Your task to perform on an android device: Add "logitech g pro" to the cart on walmart.com, then select checkout. Image 0: 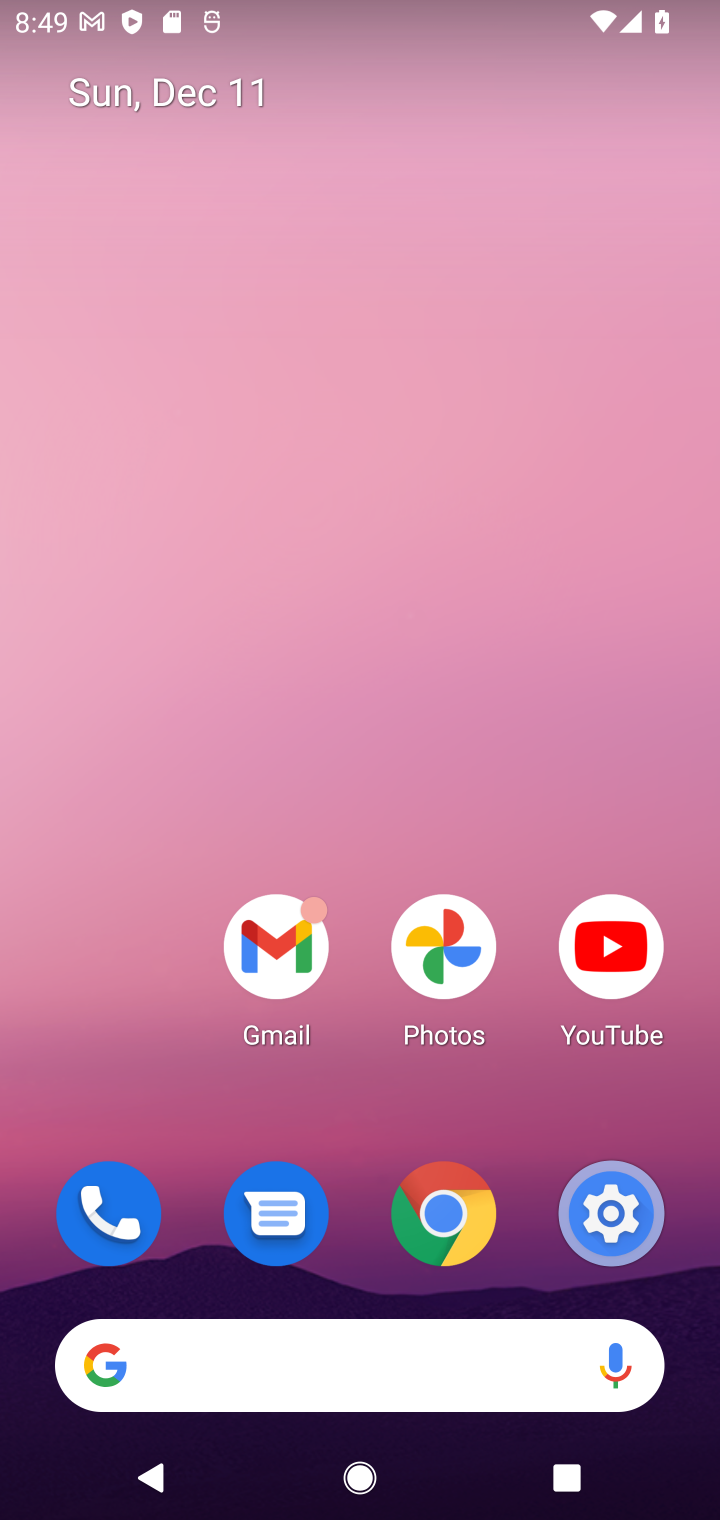
Step 0: click (313, 1334)
Your task to perform on an android device: Add "logitech g pro" to the cart on walmart.com, then select checkout. Image 1: 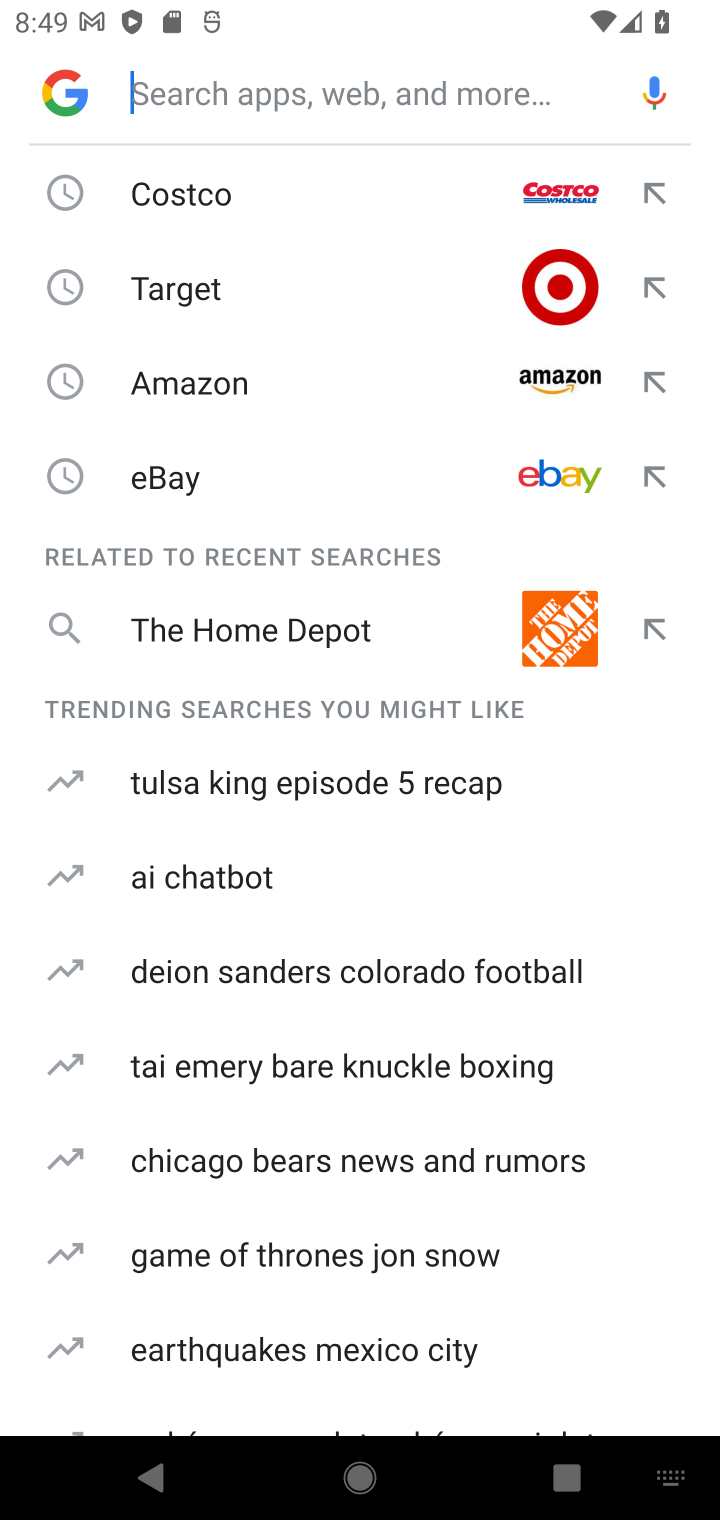
Step 1: type "walmart"
Your task to perform on an android device: Add "logitech g pro" to the cart on walmart.com, then select checkout. Image 2: 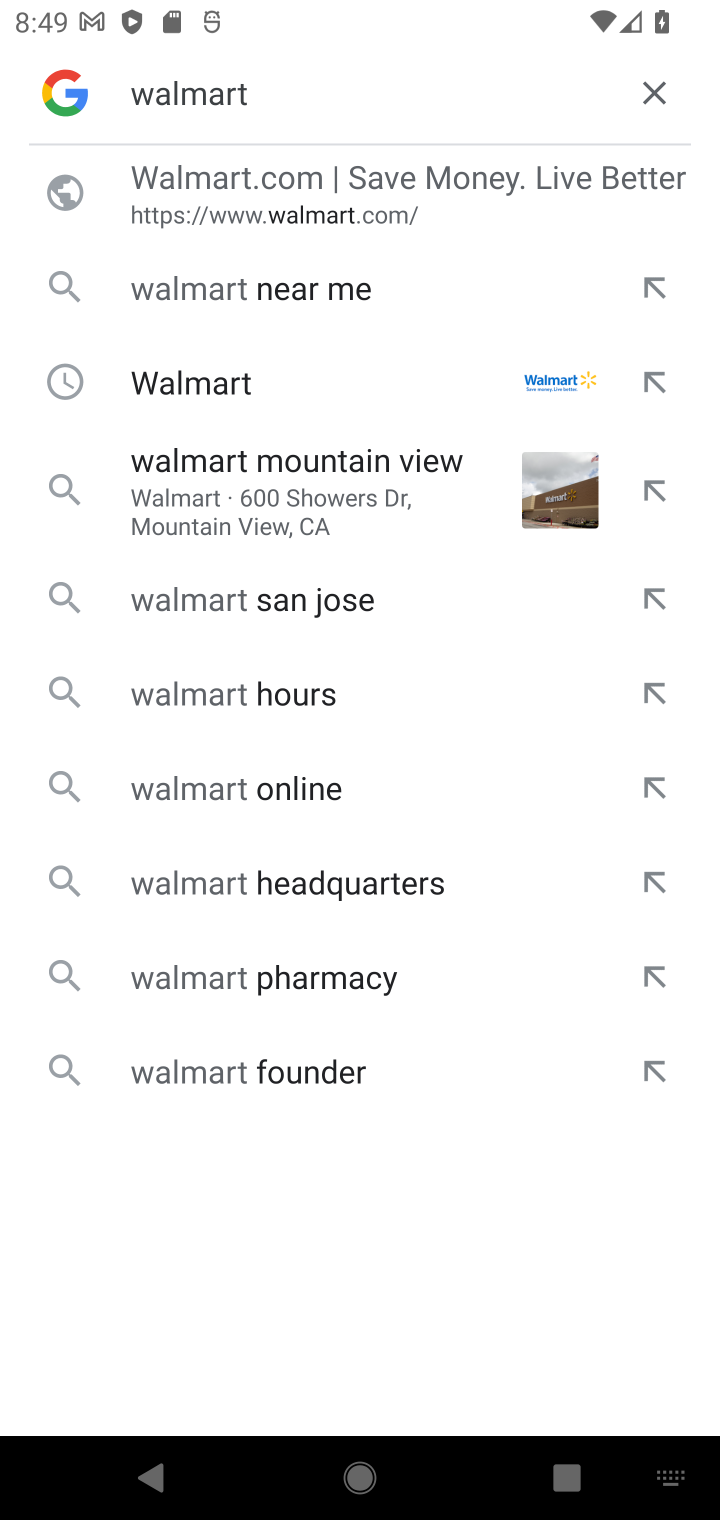
Step 2: click (464, 180)
Your task to perform on an android device: Add "logitech g pro" to the cart on walmart.com, then select checkout. Image 3: 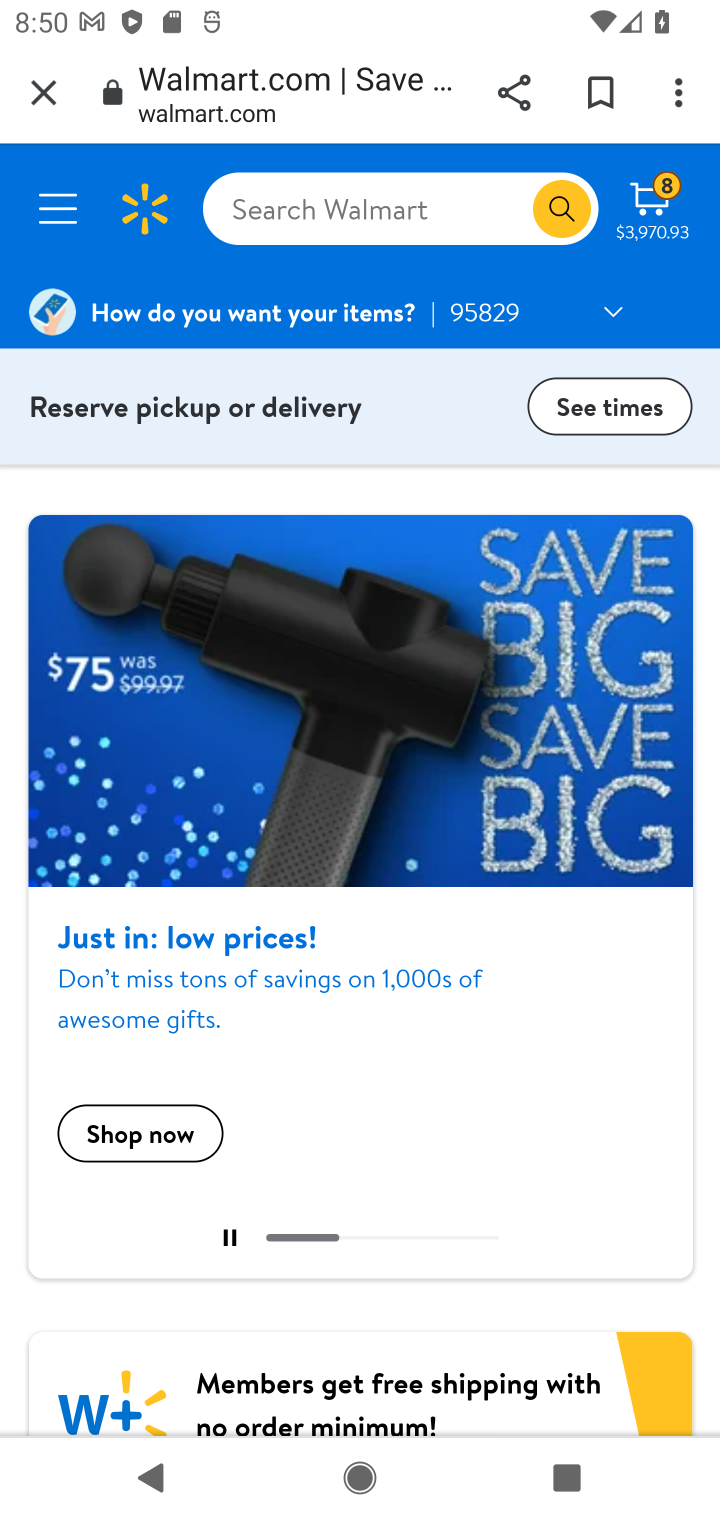
Step 3: click (334, 224)
Your task to perform on an android device: Add "logitech g pro" to the cart on walmart.com, then select checkout. Image 4: 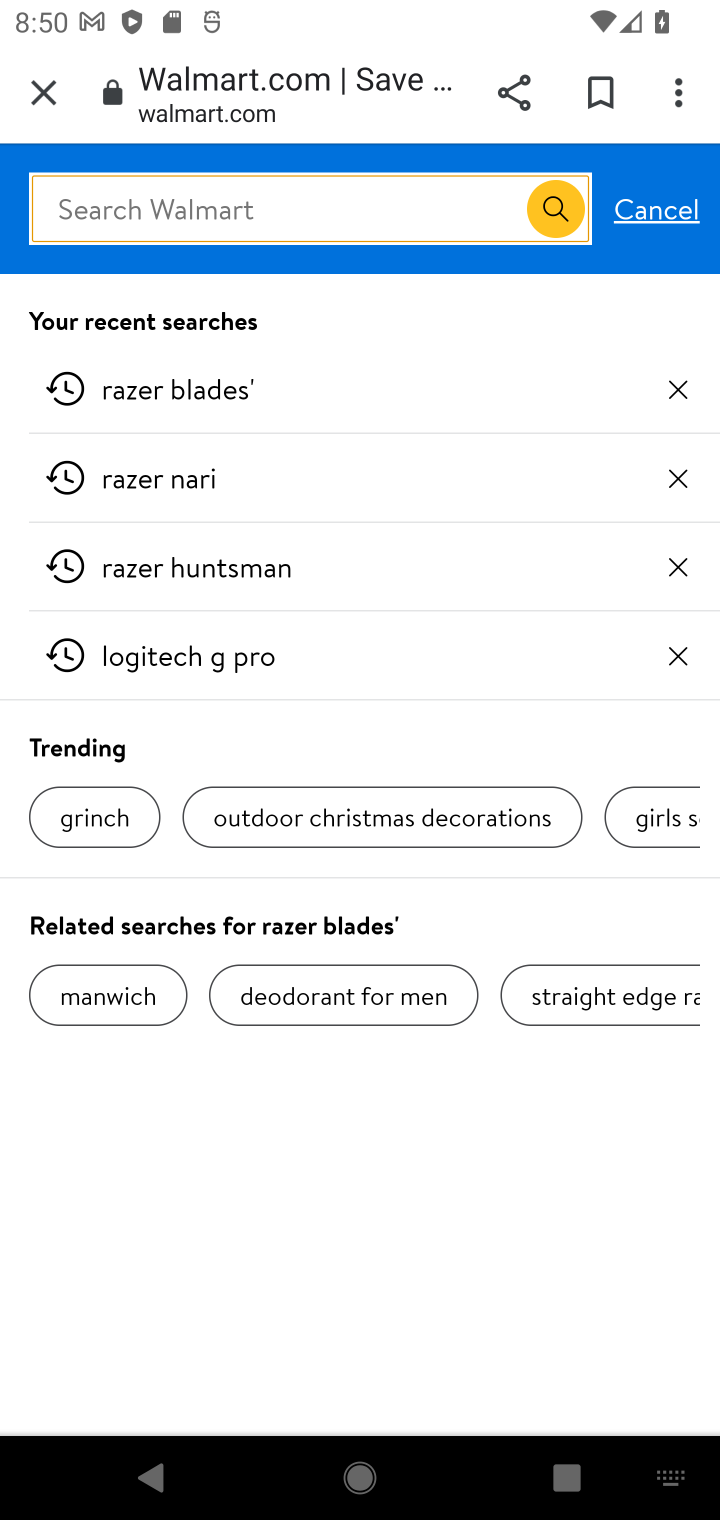
Step 4: type "logitech g pro"
Your task to perform on an android device: Add "logitech g pro" to the cart on walmart.com, then select checkout. Image 5: 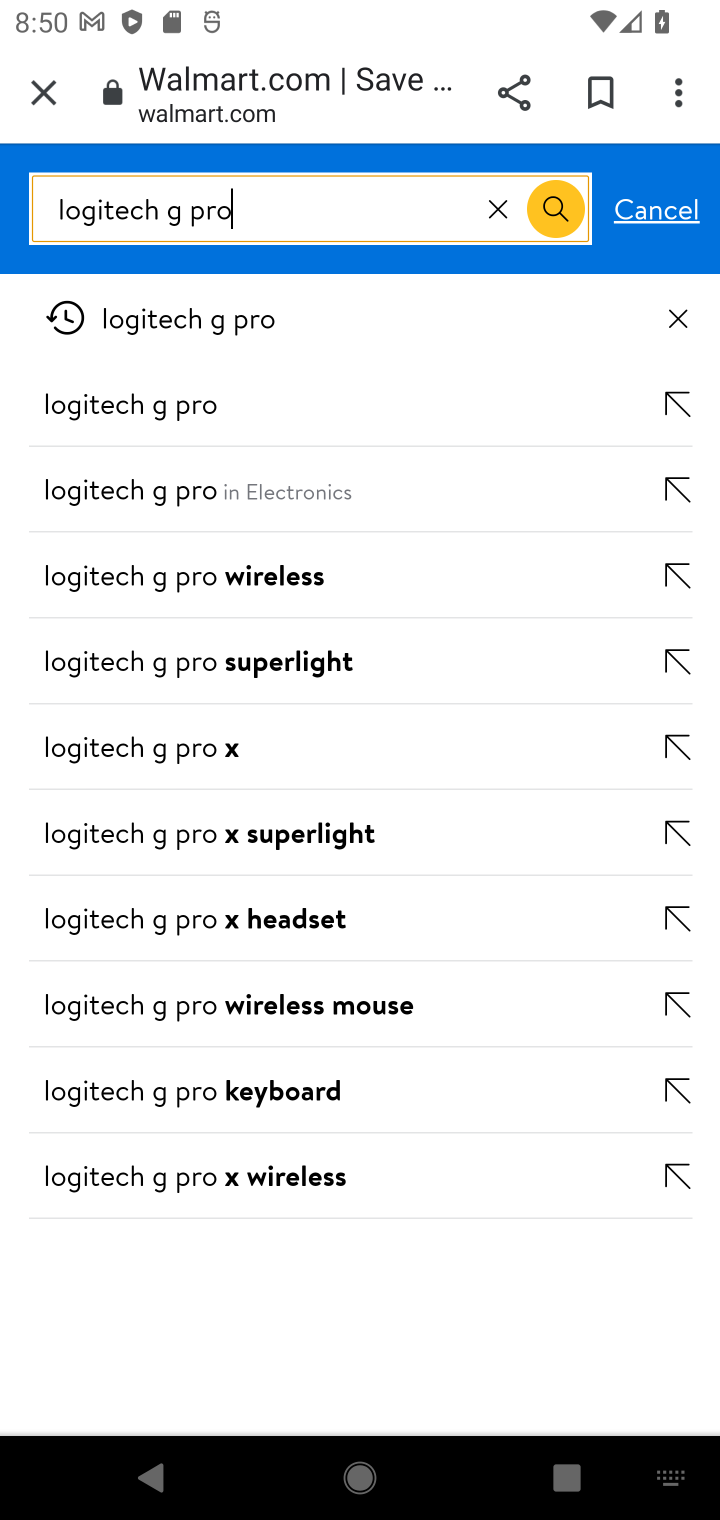
Step 5: click (152, 385)
Your task to perform on an android device: Add "logitech g pro" to the cart on walmart.com, then select checkout. Image 6: 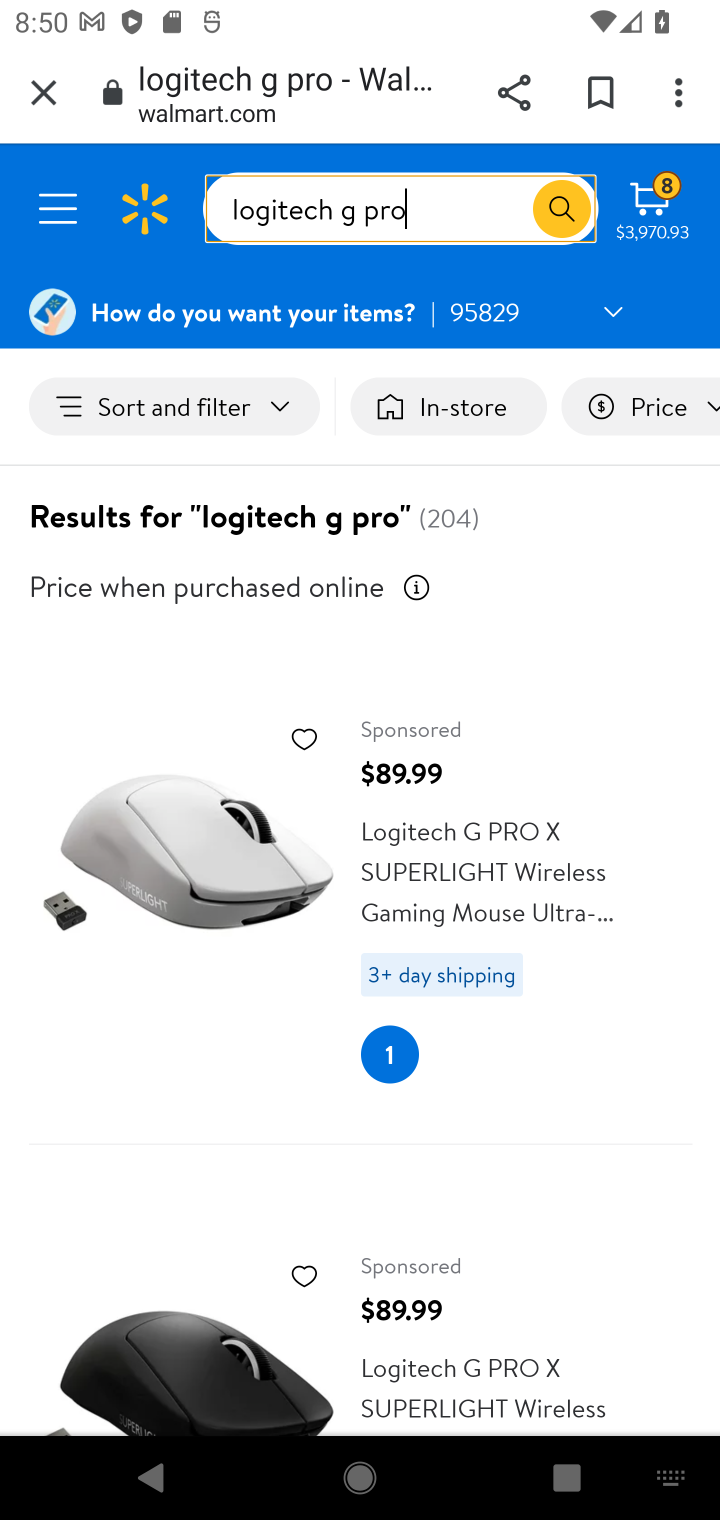
Step 6: click (565, 227)
Your task to perform on an android device: Add "logitech g pro" to the cart on walmart.com, then select checkout. Image 7: 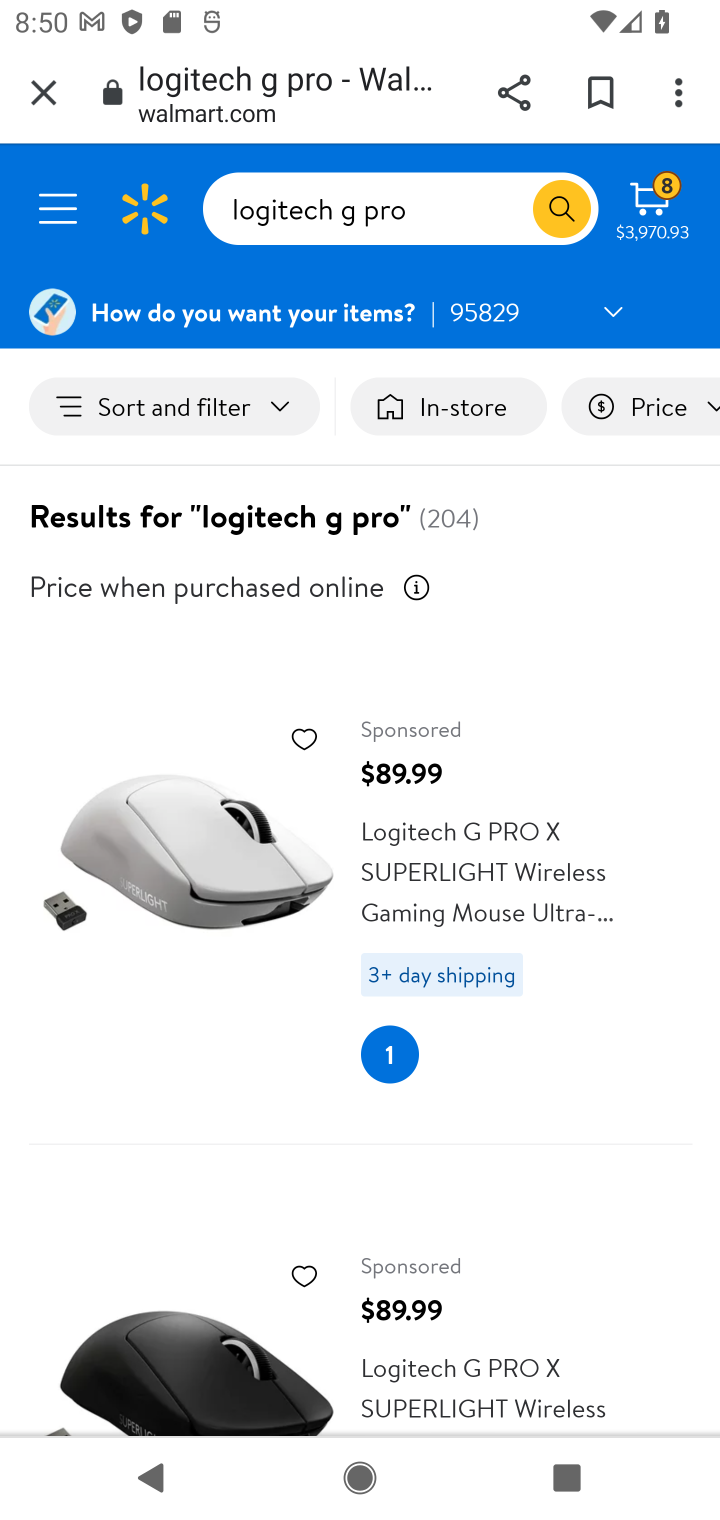
Step 7: click (401, 891)
Your task to perform on an android device: Add "logitech g pro" to the cart on walmart.com, then select checkout. Image 8: 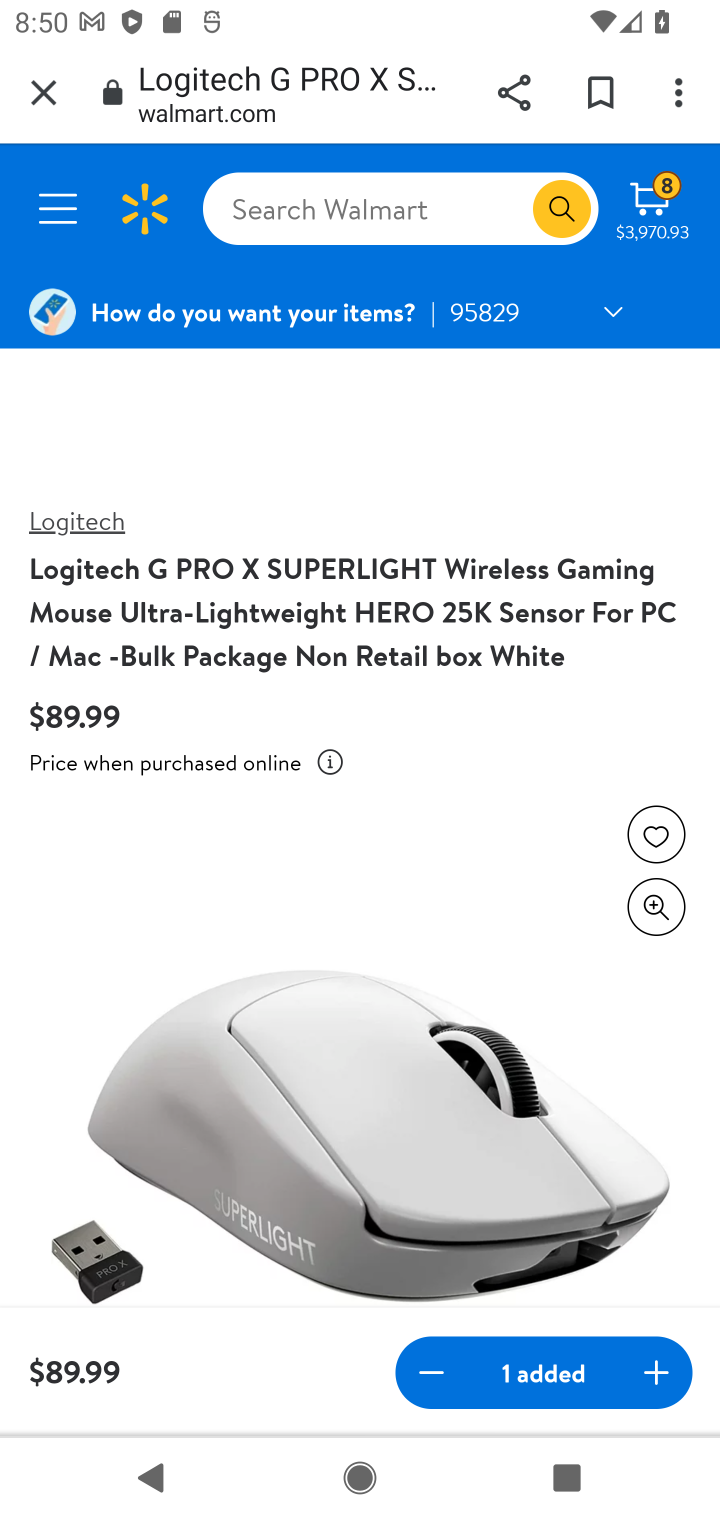
Step 8: click (635, 1399)
Your task to perform on an android device: Add "logitech g pro" to the cart on walmart.com, then select checkout. Image 9: 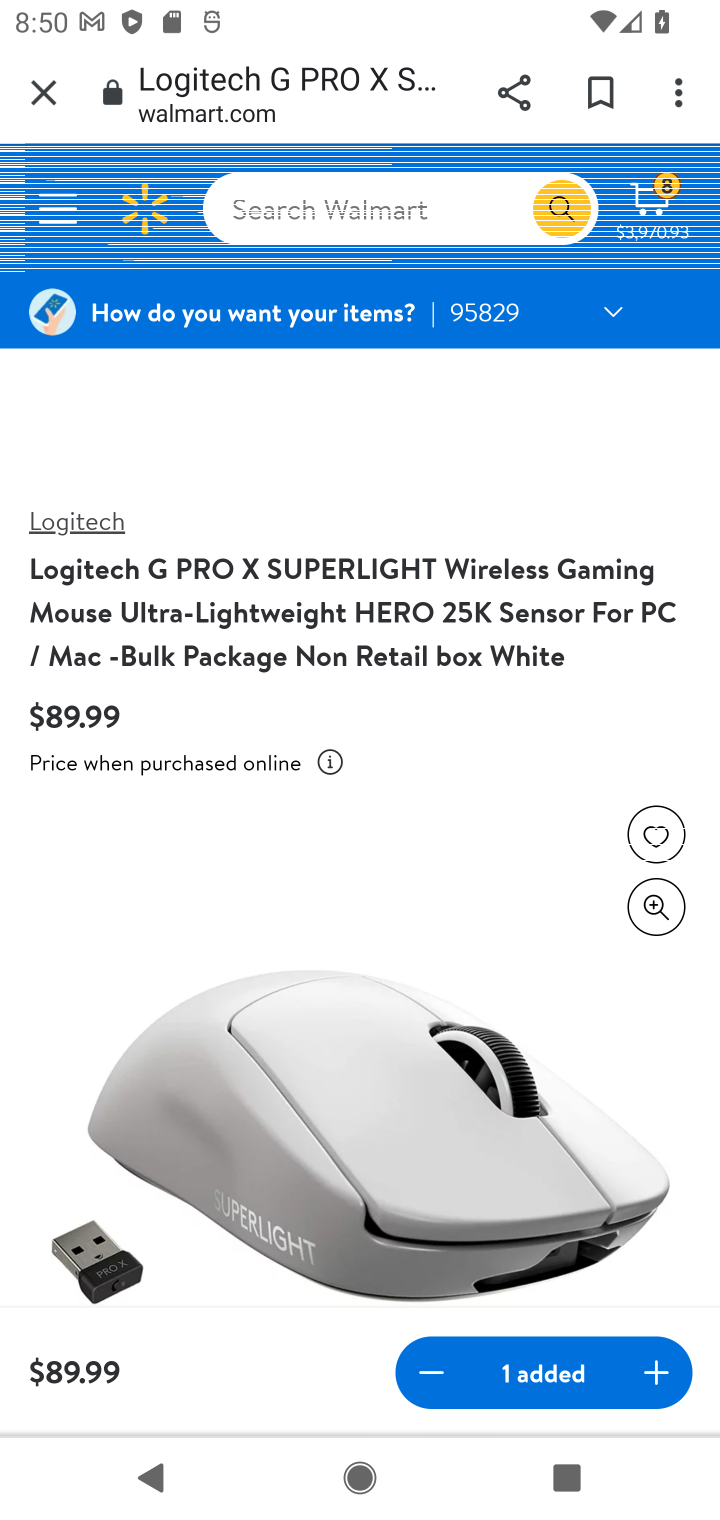
Step 9: task complete